Your task to perform on an android device: Go to internet settings Image 0: 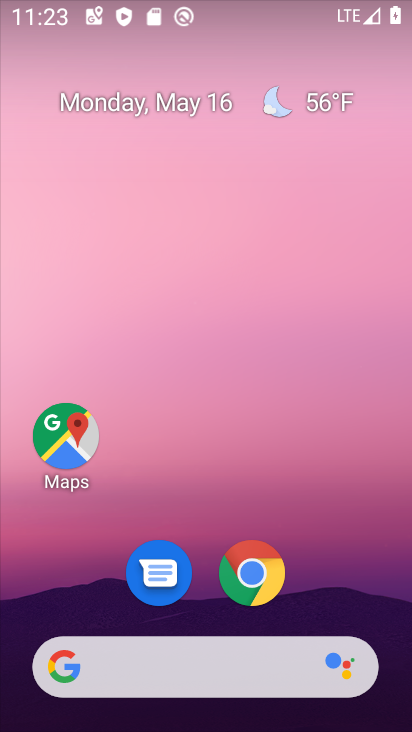
Step 0: click (338, 170)
Your task to perform on an android device: Go to internet settings Image 1: 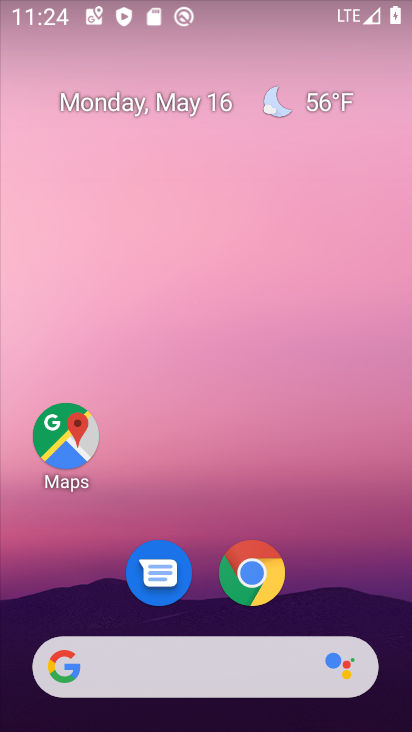
Step 1: drag from (258, 693) to (286, 0)
Your task to perform on an android device: Go to internet settings Image 2: 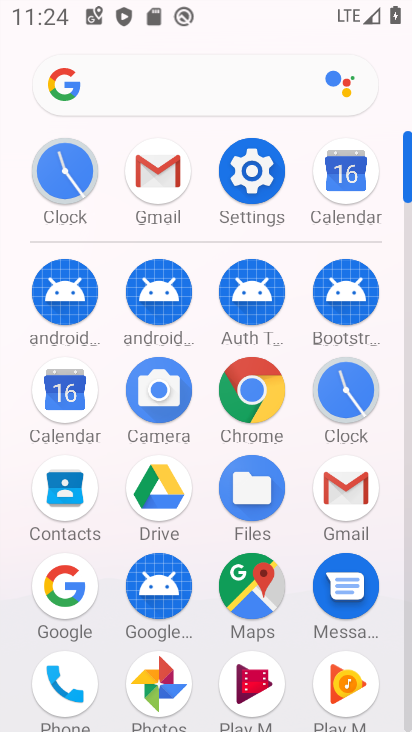
Step 2: click (243, 160)
Your task to perform on an android device: Go to internet settings Image 3: 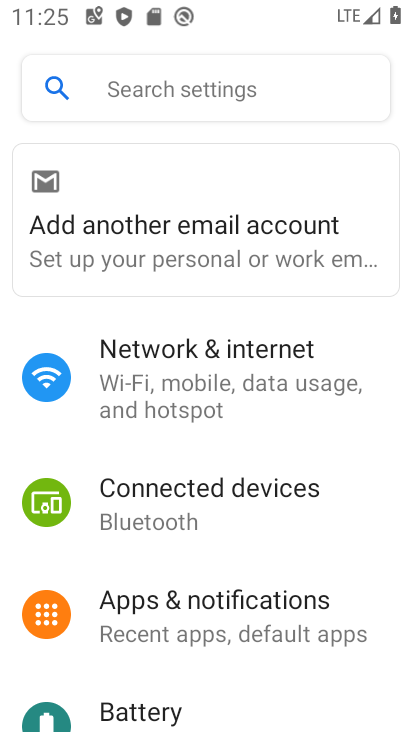
Step 3: click (204, 397)
Your task to perform on an android device: Go to internet settings Image 4: 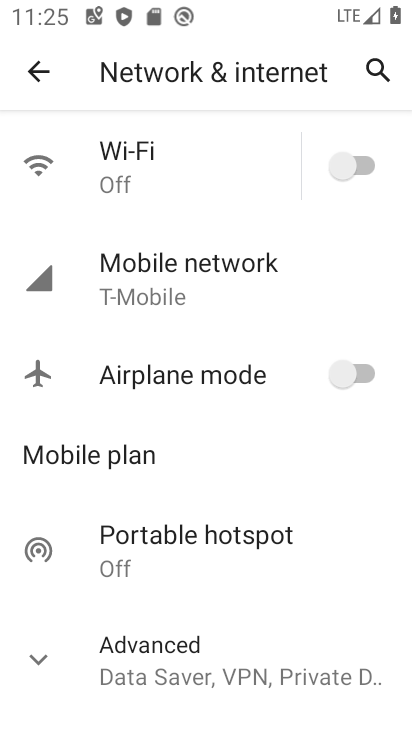
Step 4: task complete